Your task to perform on an android device: Go to CNN.com Image 0: 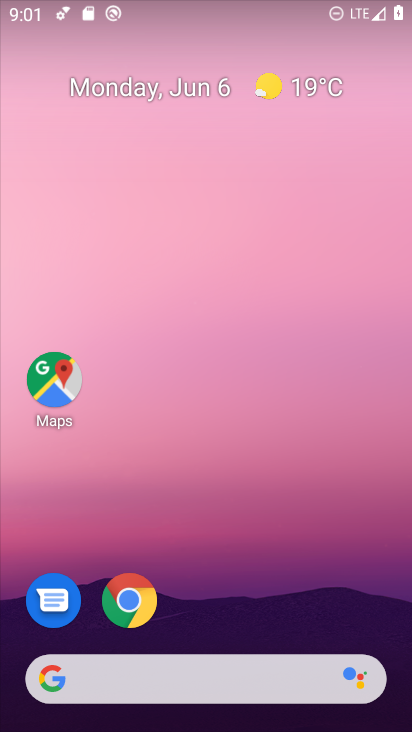
Step 0: click (136, 599)
Your task to perform on an android device: Go to CNN.com Image 1: 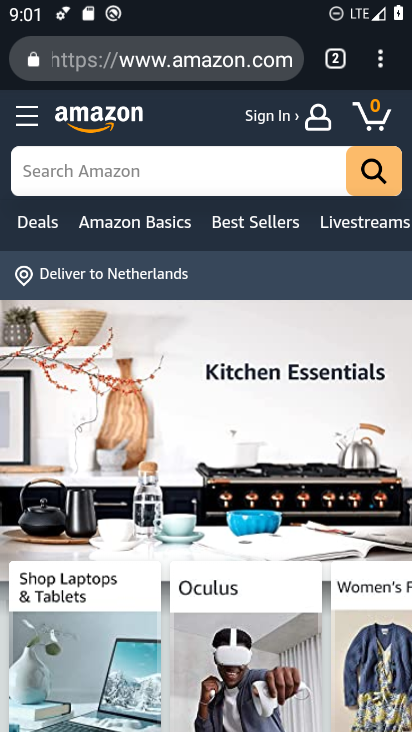
Step 1: click (225, 73)
Your task to perform on an android device: Go to CNN.com Image 2: 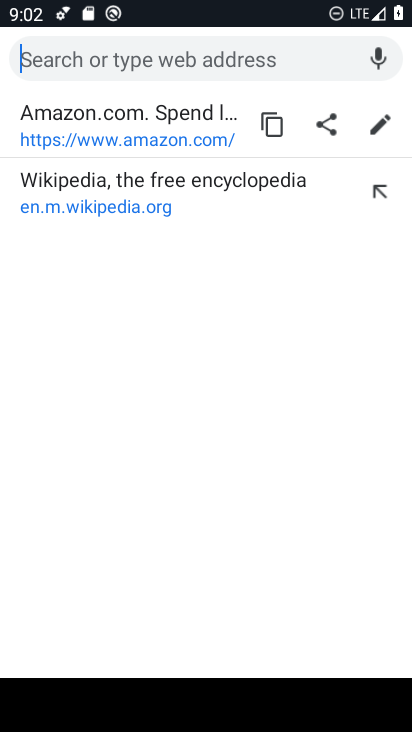
Step 2: type "CNN.com"
Your task to perform on an android device: Go to CNN.com Image 3: 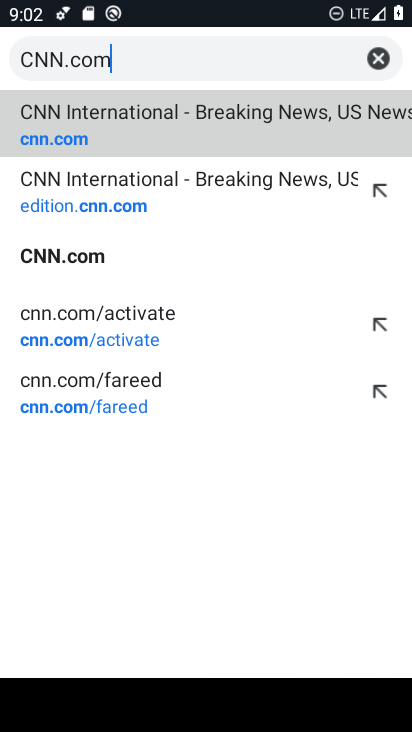
Step 3: click (185, 136)
Your task to perform on an android device: Go to CNN.com Image 4: 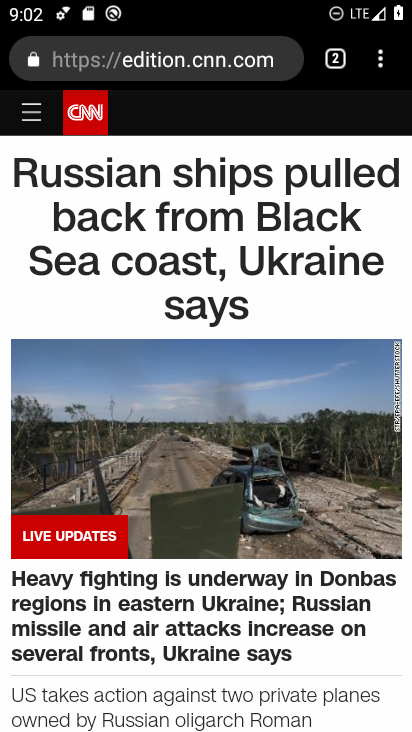
Step 4: task complete